Your task to perform on an android device: make emails show in primary in the gmail app Image 0: 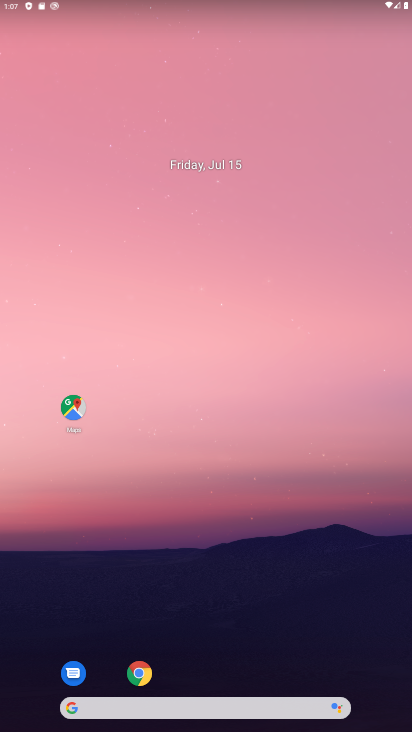
Step 0: drag from (270, 290) to (240, 138)
Your task to perform on an android device: make emails show in primary in the gmail app Image 1: 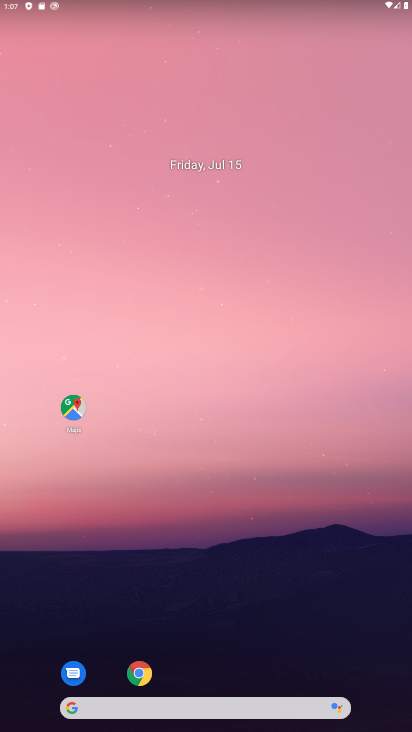
Step 1: drag from (221, 584) to (135, 60)
Your task to perform on an android device: make emails show in primary in the gmail app Image 2: 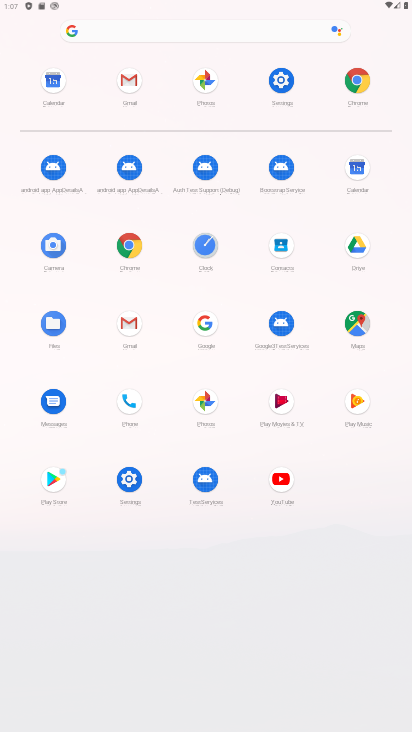
Step 2: click (130, 81)
Your task to perform on an android device: make emails show in primary in the gmail app Image 3: 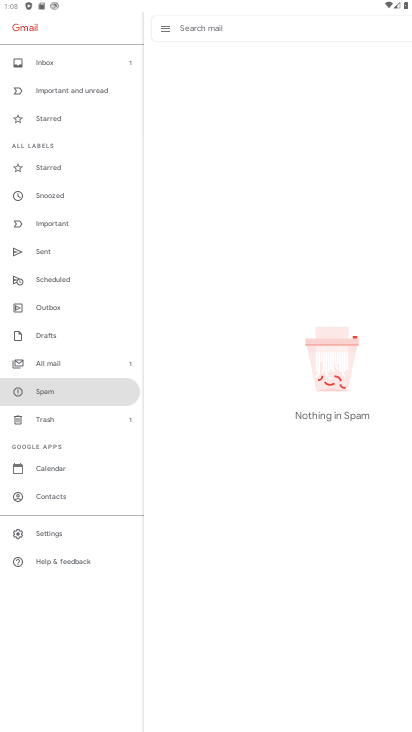
Step 3: click (59, 537)
Your task to perform on an android device: make emails show in primary in the gmail app Image 4: 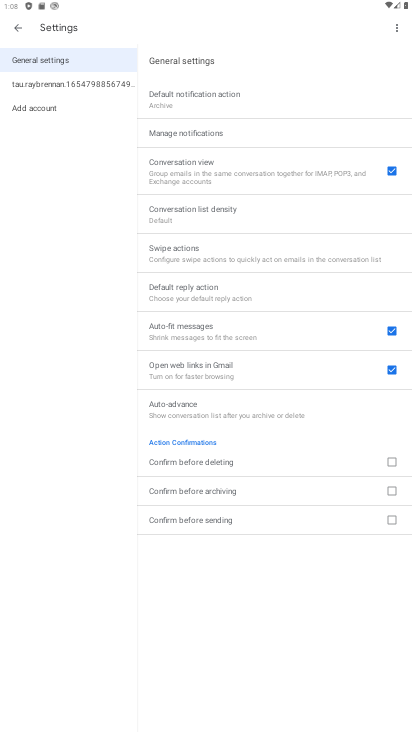
Step 4: click (56, 79)
Your task to perform on an android device: make emails show in primary in the gmail app Image 5: 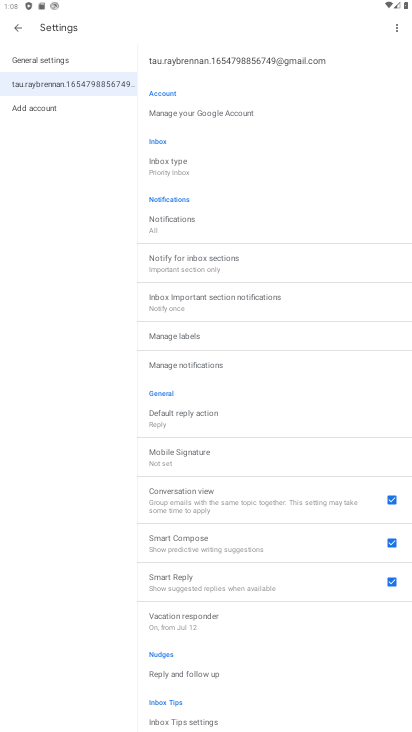
Step 5: click (179, 165)
Your task to perform on an android device: make emails show in primary in the gmail app Image 6: 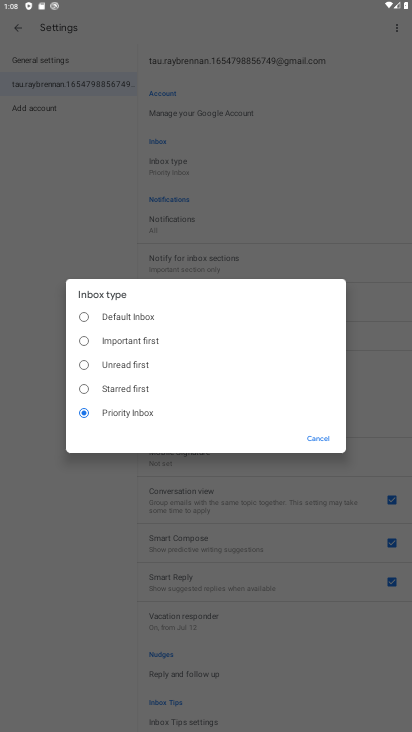
Step 6: click (125, 322)
Your task to perform on an android device: make emails show in primary in the gmail app Image 7: 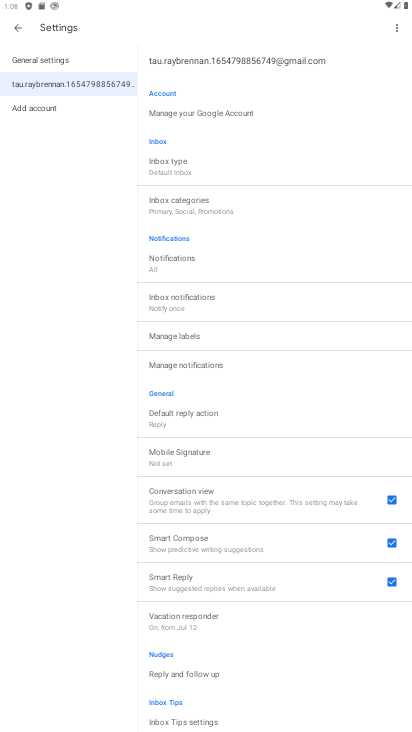
Step 7: task complete